Your task to perform on an android device: check battery use Image 0: 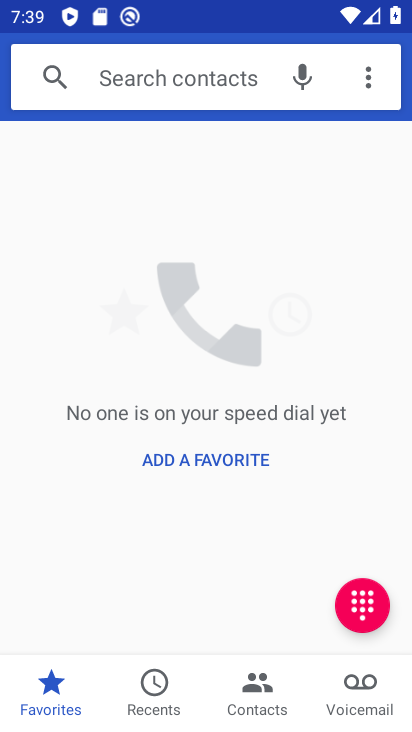
Step 0: press home button
Your task to perform on an android device: check battery use Image 1: 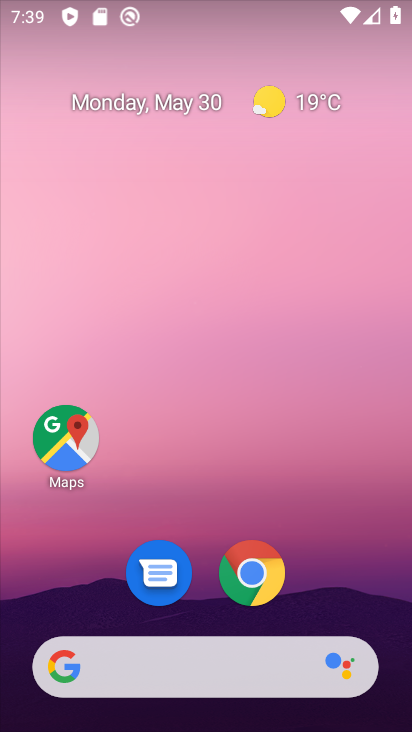
Step 1: drag from (200, 594) to (256, 4)
Your task to perform on an android device: check battery use Image 2: 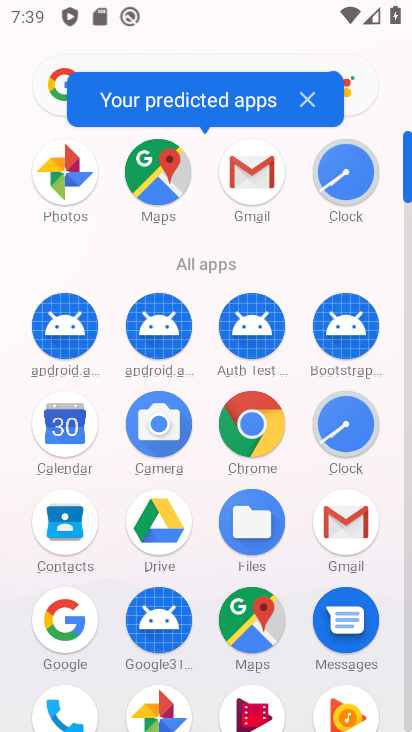
Step 2: drag from (202, 547) to (231, 252)
Your task to perform on an android device: check battery use Image 3: 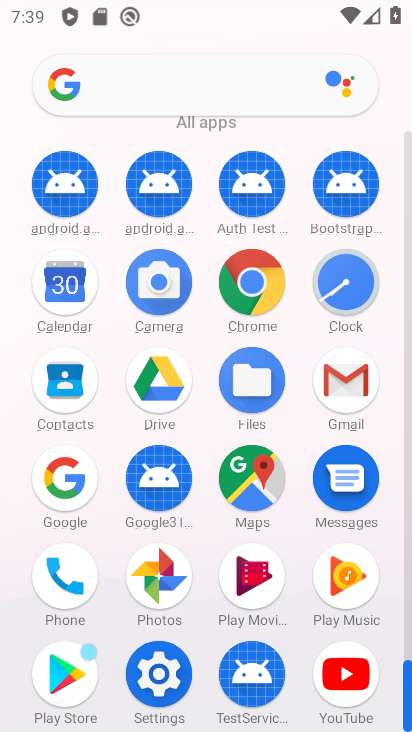
Step 3: click (155, 691)
Your task to perform on an android device: check battery use Image 4: 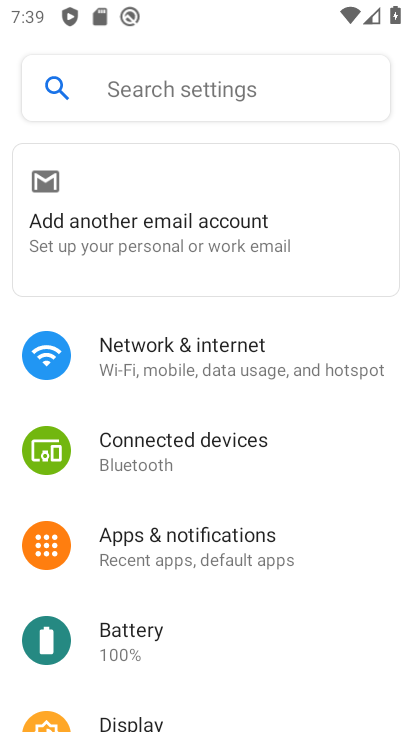
Step 4: click (180, 641)
Your task to perform on an android device: check battery use Image 5: 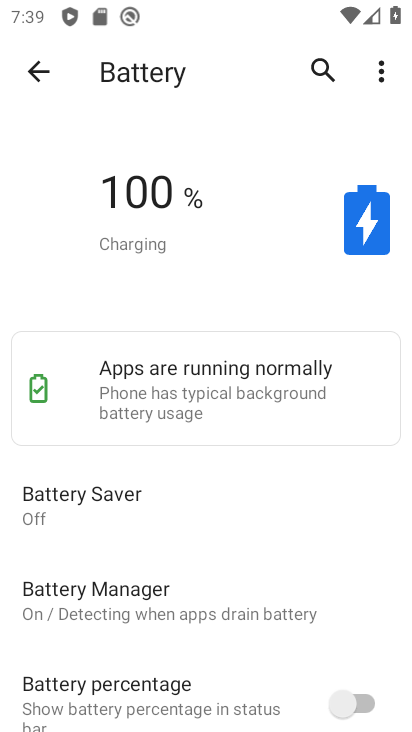
Step 5: click (383, 75)
Your task to perform on an android device: check battery use Image 6: 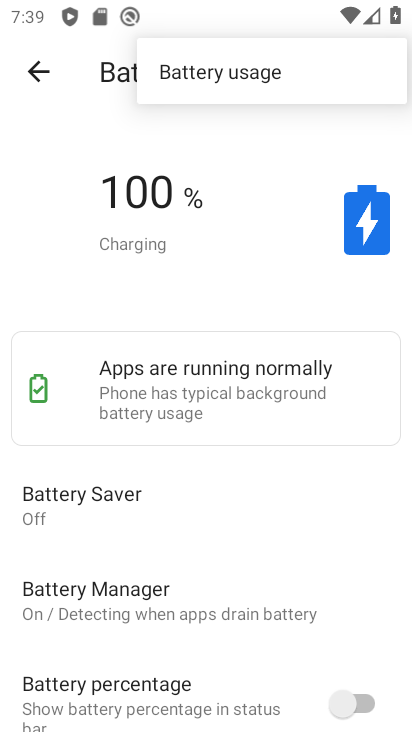
Step 6: click (260, 78)
Your task to perform on an android device: check battery use Image 7: 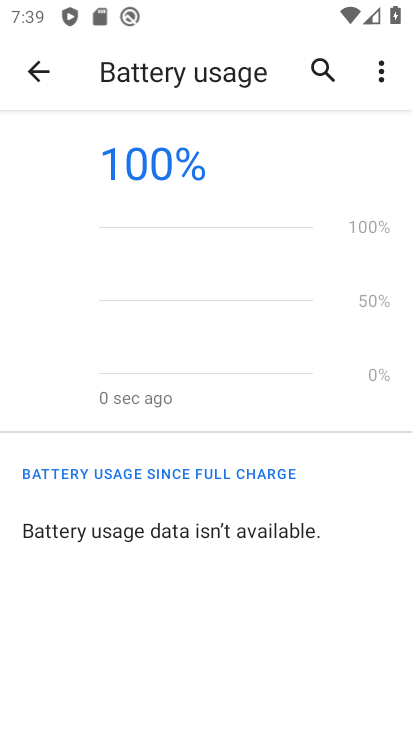
Step 7: task complete